Your task to perform on an android device: turn off notifications in google photos Image 0: 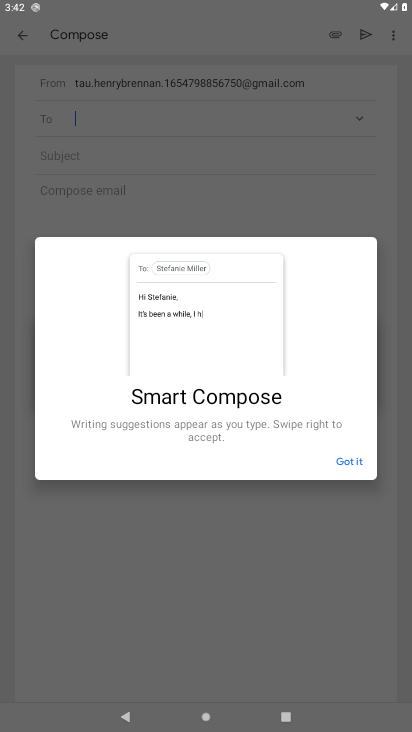
Step 0: press home button
Your task to perform on an android device: turn off notifications in google photos Image 1: 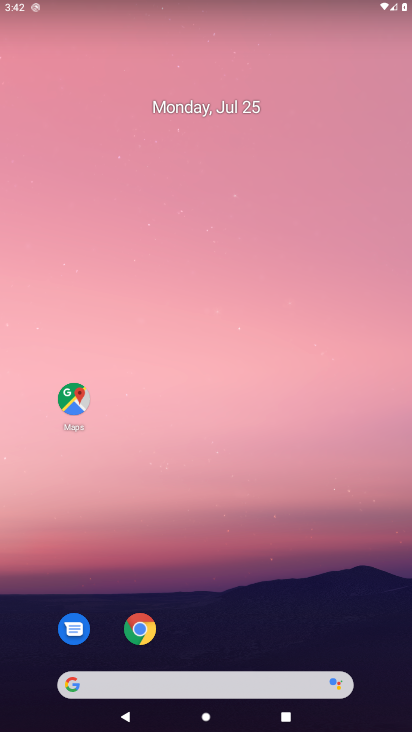
Step 1: drag from (36, 712) to (202, 113)
Your task to perform on an android device: turn off notifications in google photos Image 2: 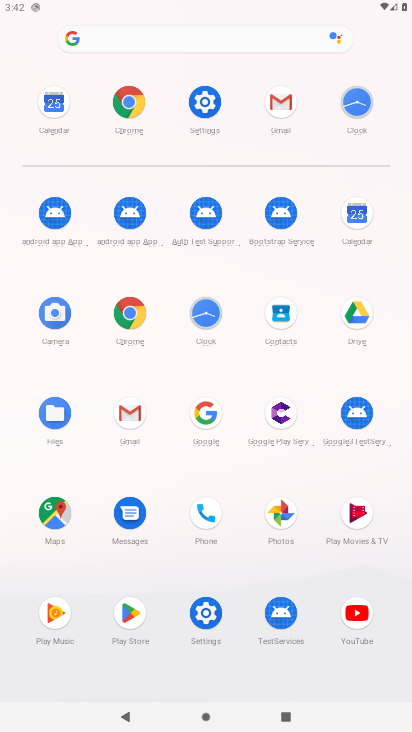
Step 2: click (282, 514)
Your task to perform on an android device: turn off notifications in google photos Image 3: 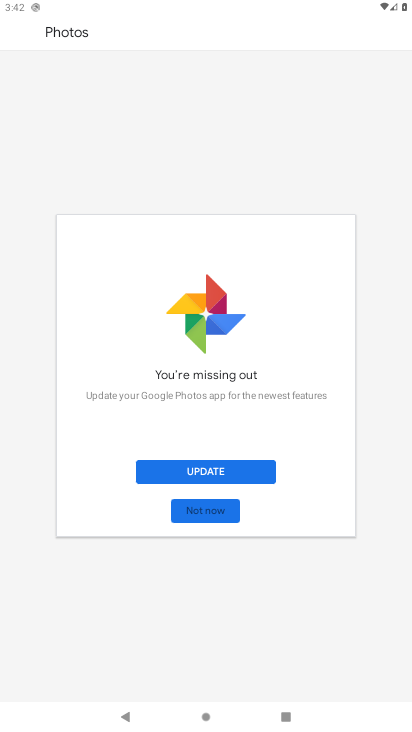
Step 3: click (195, 468)
Your task to perform on an android device: turn off notifications in google photos Image 4: 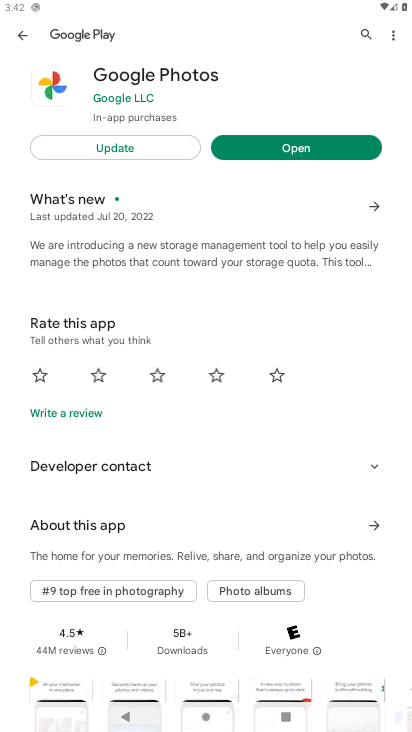
Step 4: click (283, 137)
Your task to perform on an android device: turn off notifications in google photos Image 5: 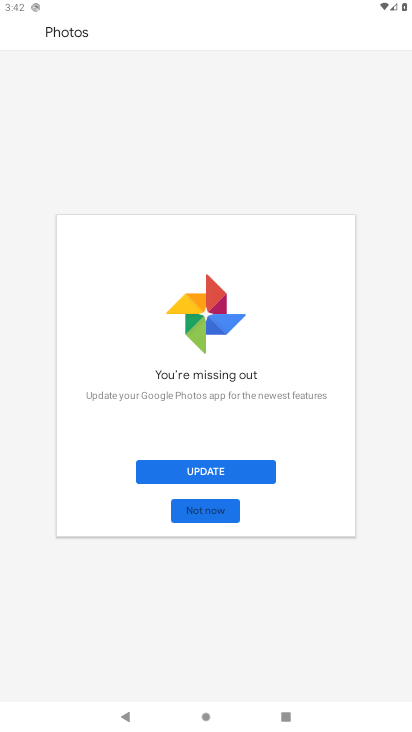
Step 5: task complete